Your task to perform on an android device: Show me popular games on the Play Store Image 0: 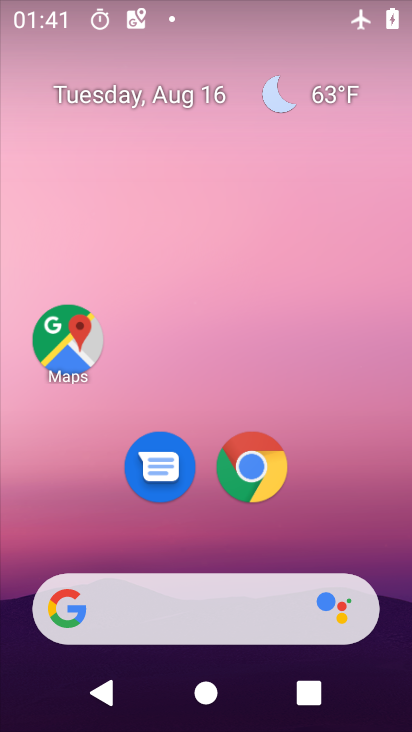
Step 0: press home button
Your task to perform on an android device: Show me popular games on the Play Store Image 1: 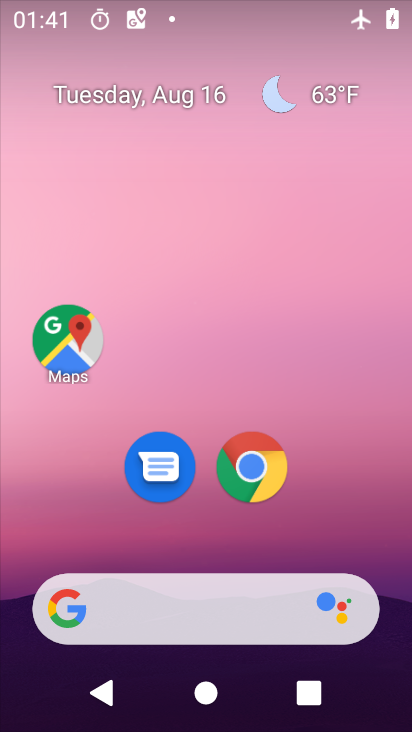
Step 1: drag from (368, 535) to (403, 415)
Your task to perform on an android device: Show me popular games on the Play Store Image 2: 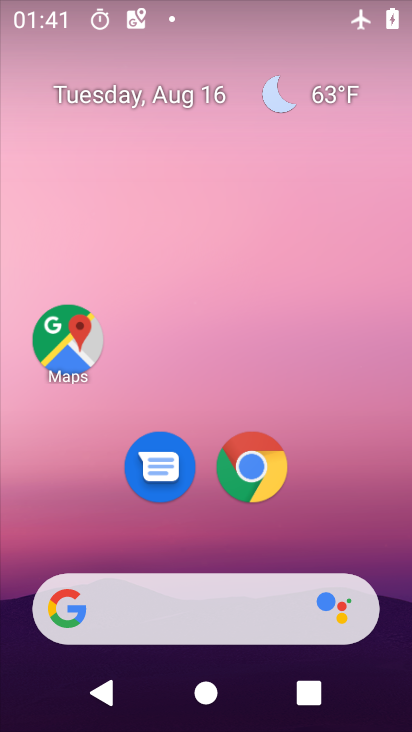
Step 2: drag from (382, 565) to (411, 467)
Your task to perform on an android device: Show me popular games on the Play Store Image 3: 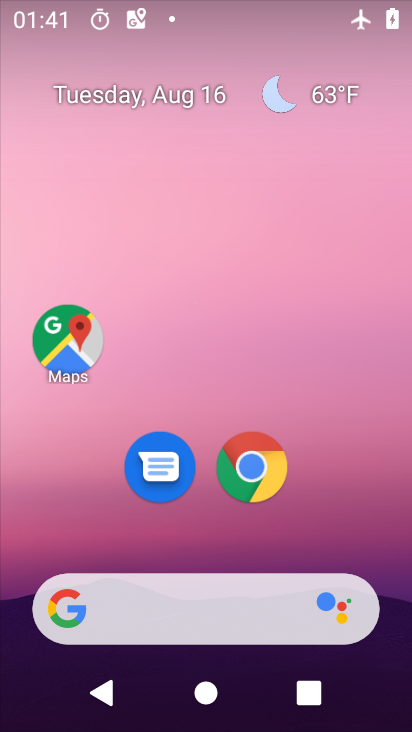
Step 3: drag from (378, 529) to (410, 498)
Your task to perform on an android device: Show me popular games on the Play Store Image 4: 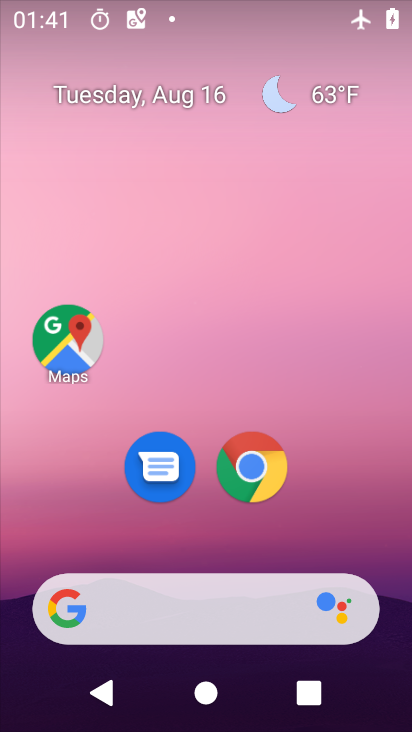
Step 4: drag from (371, 274) to (406, 343)
Your task to perform on an android device: Show me popular games on the Play Store Image 5: 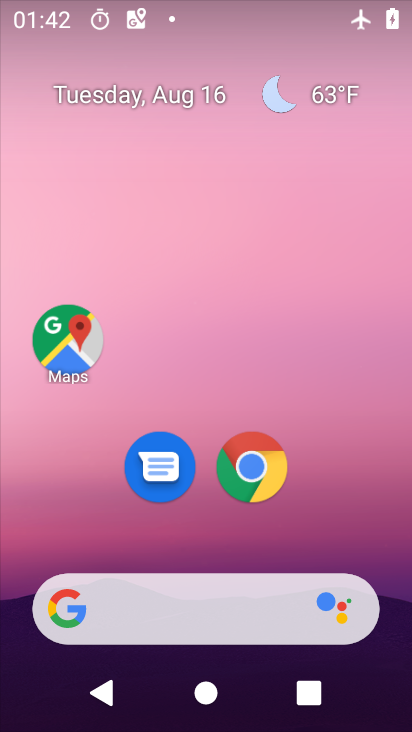
Step 5: drag from (378, 549) to (411, 511)
Your task to perform on an android device: Show me popular games on the Play Store Image 6: 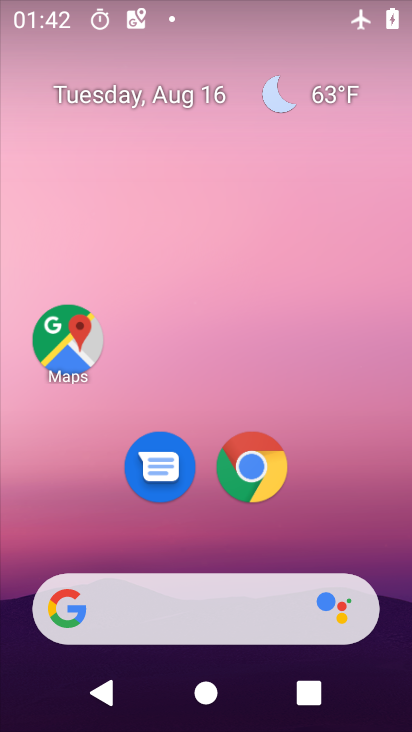
Step 6: drag from (390, 572) to (389, 33)
Your task to perform on an android device: Show me popular games on the Play Store Image 7: 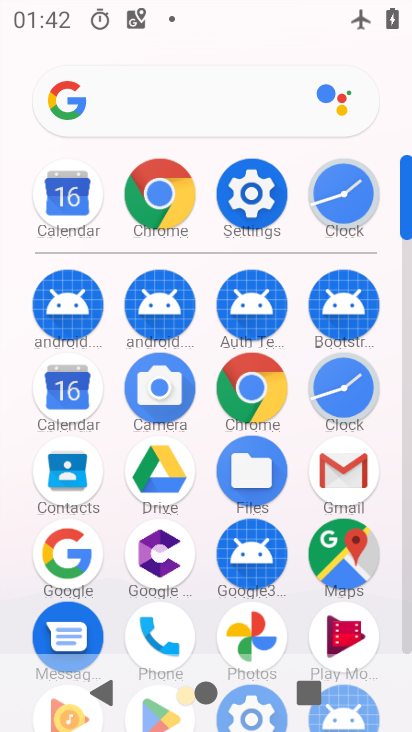
Step 7: drag from (390, 422) to (389, 197)
Your task to perform on an android device: Show me popular games on the Play Store Image 8: 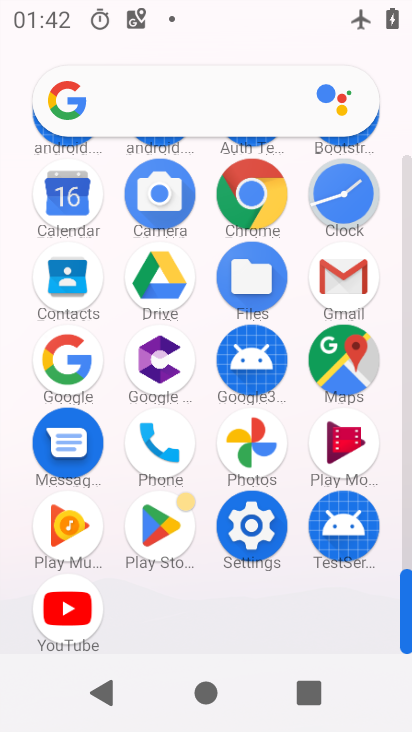
Step 8: click (164, 529)
Your task to perform on an android device: Show me popular games on the Play Store Image 9: 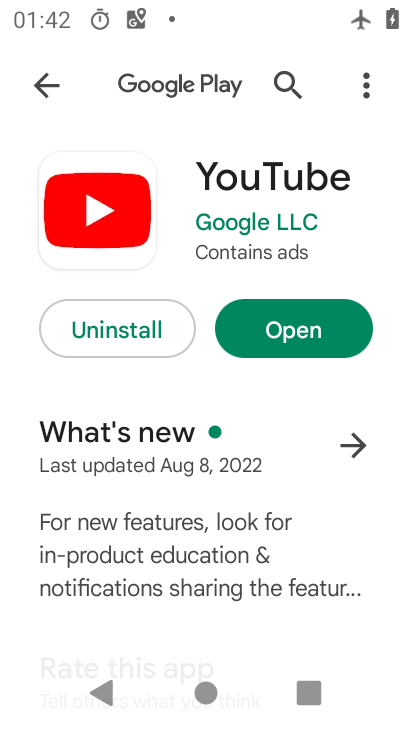
Step 9: press back button
Your task to perform on an android device: Show me popular games on the Play Store Image 10: 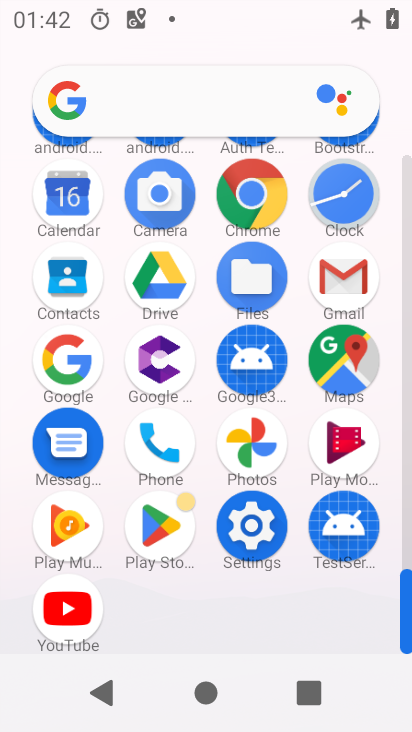
Step 10: click (165, 529)
Your task to perform on an android device: Show me popular games on the Play Store Image 11: 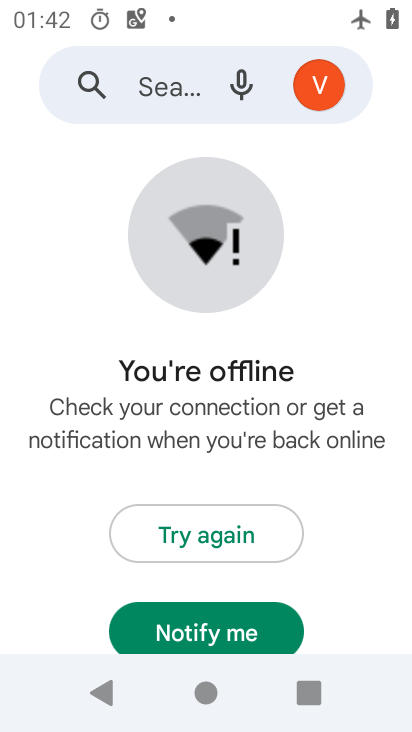
Step 11: task complete